Your task to perform on an android device: turn on javascript in the chrome app Image 0: 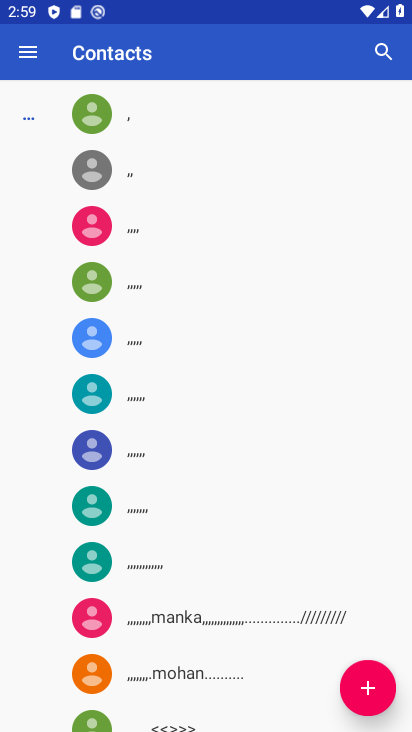
Step 0: press home button
Your task to perform on an android device: turn on javascript in the chrome app Image 1: 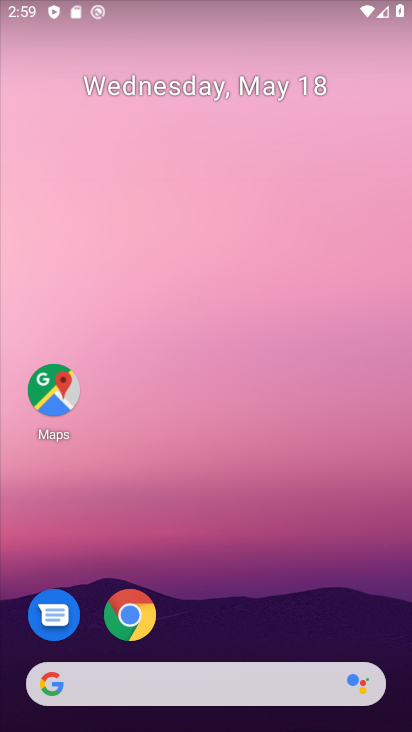
Step 1: click (139, 622)
Your task to perform on an android device: turn on javascript in the chrome app Image 2: 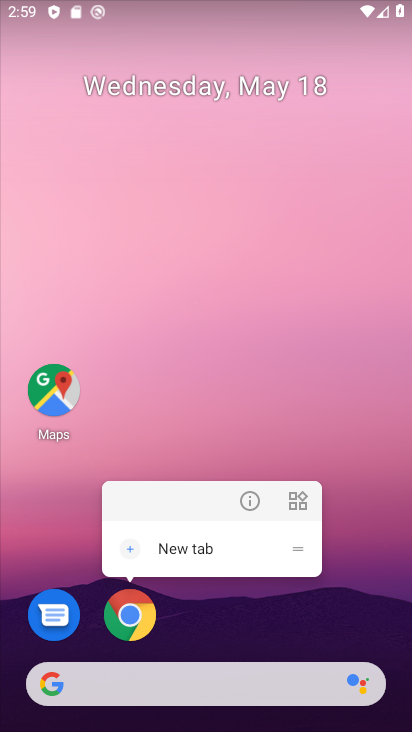
Step 2: click (138, 621)
Your task to perform on an android device: turn on javascript in the chrome app Image 3: 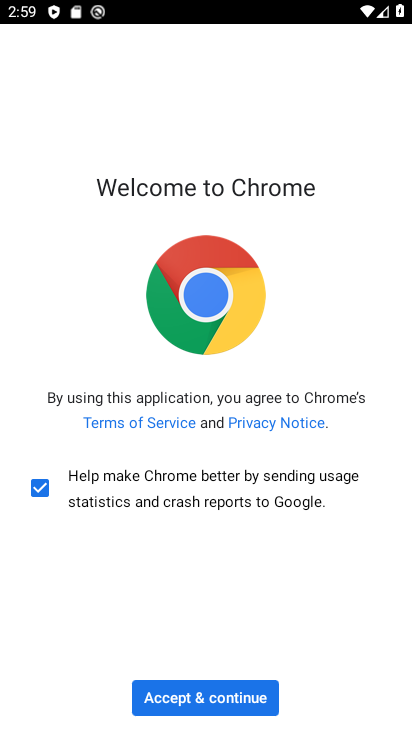
Step 3: click (235, 712)
Your task to perform on an android device: turn on javascript in the chrome app Image 4: 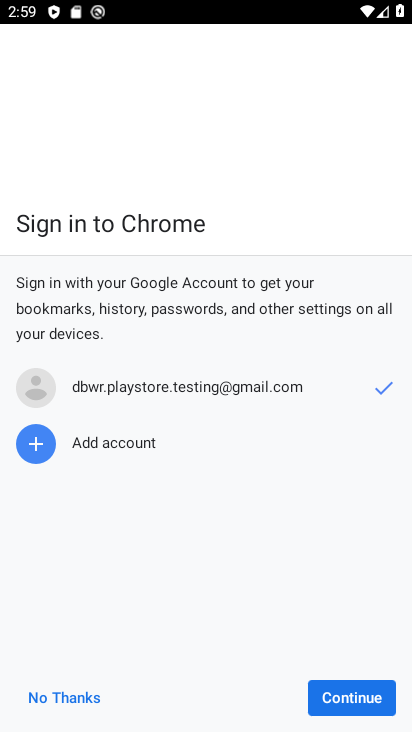
Step 4: click (346, 700)
Your task to perform on an android device: turn on javascript in the chrome app Image 5: 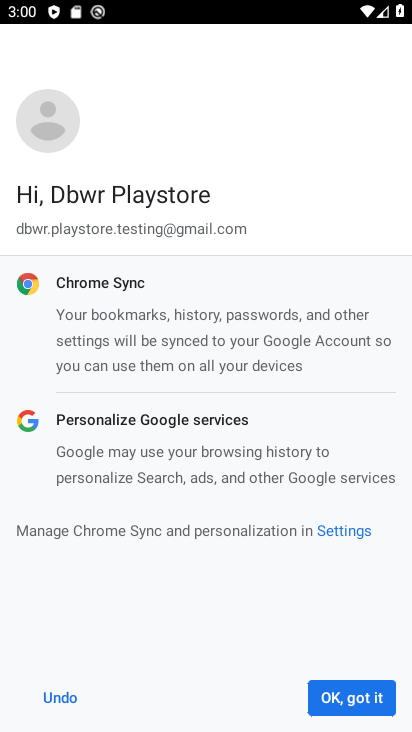
Step 5: click (355, 703)
Your task to perform on an android device: turn on javascript in the chrome app Image 6: 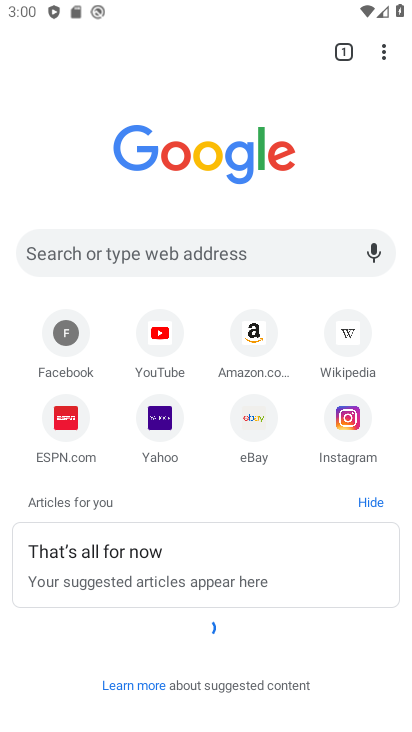
Step 6: drag from (391, 50) to (299, 425)
Your task to perform on an android device: turn on javascript in the chrome app Image 7: 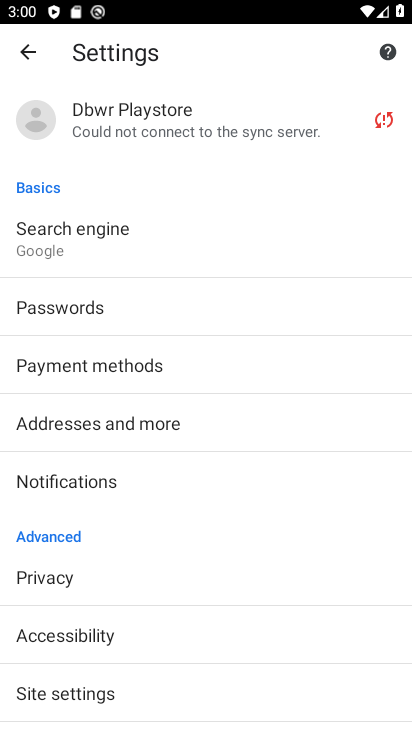
Step 7: drag from (180, 686) to (268, 379)
Your task to perform on an android device: turn on javascript in the chrome app Image 8: 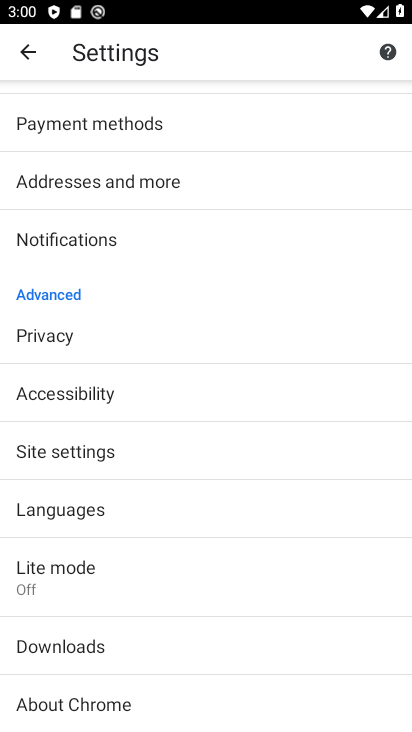
Step 8: click (153, 452)
Your task to perform on an android device: turn on javascript in the chrome app Image 9: 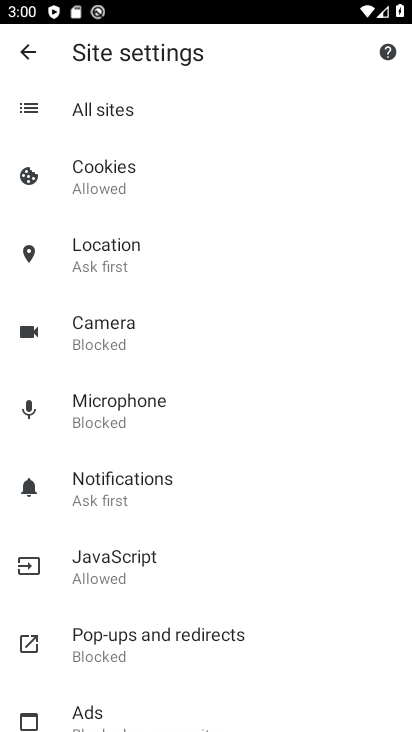
Step 9: click (182, 583)
Your task to perform on an android device: turn on javascript in the chrome app Image 10: 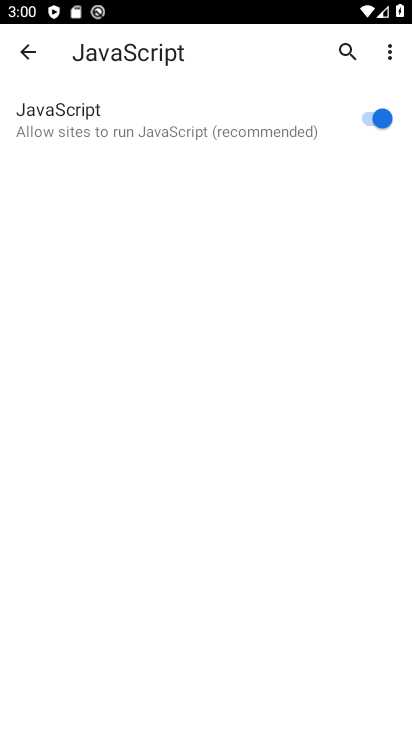
Step 10: task complete